Your task to perform on an android device: Open Youtube and go to the subscriptions tab Image 0: 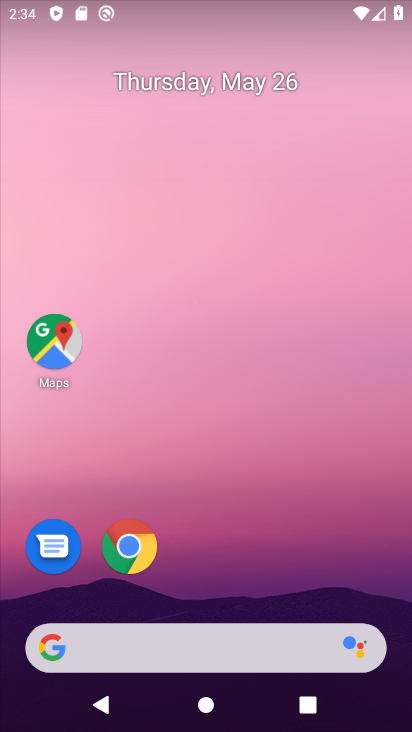
Step 0: drag from (396, 674) to (373, 216)
Your task to perform on an android device: Open Youtube and go to the subscriptions tab Image 1: 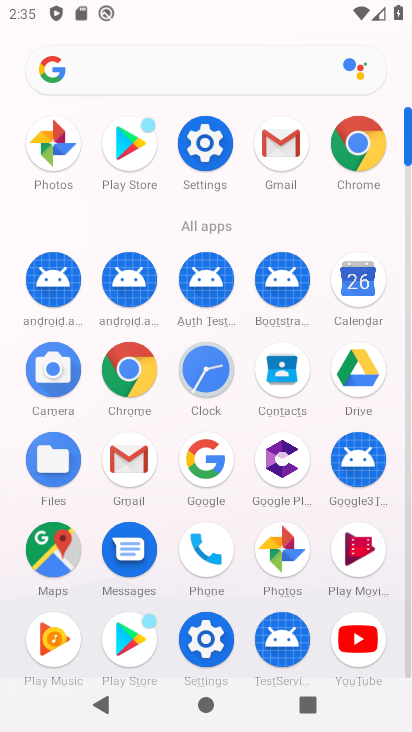
Step 1: click (356, 628)
Your task to perform on an android device: Open Youtube and go to the subscriptions tab Image 2: 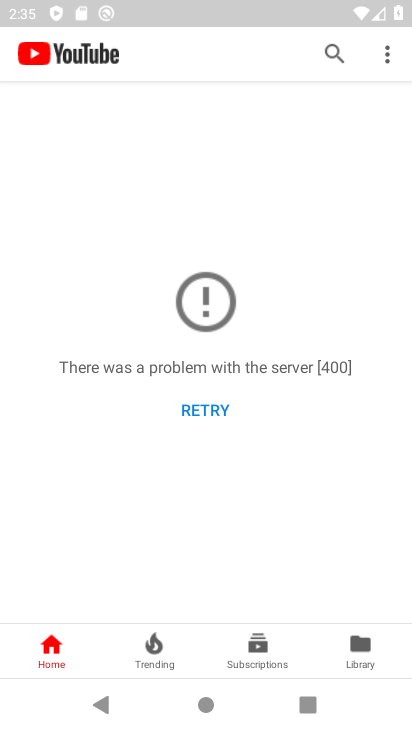
Step 2: click (266, 654)
Your task to perform on an android device: Open Youtube and go to the subscriptions tab Image 3: 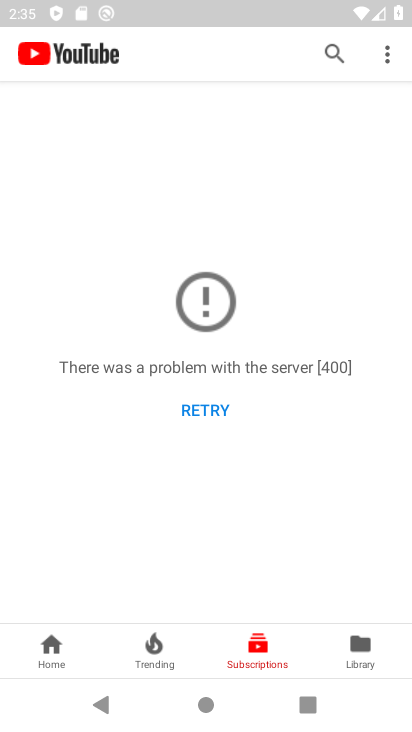
Step 3: task complete